Your task to perform on an android device: turn off data saver in the chrome app Image 0: 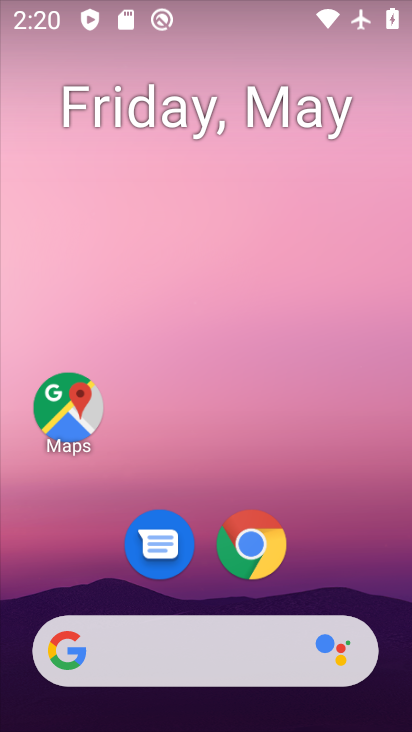
Step 0: click (266, 544)
Your task to perform on an android device: turn off data saver in the chrome app Image 1: 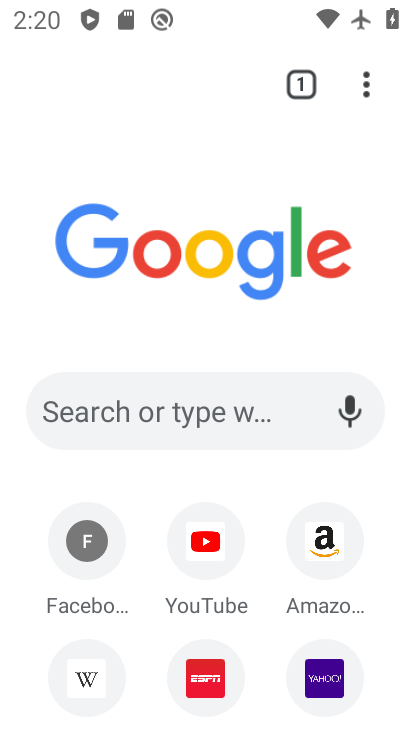
Step 1: drag from (363, 86) to (117, 594)
Your task to perform on an android device: turn off data saver in the chrome app Image 2: 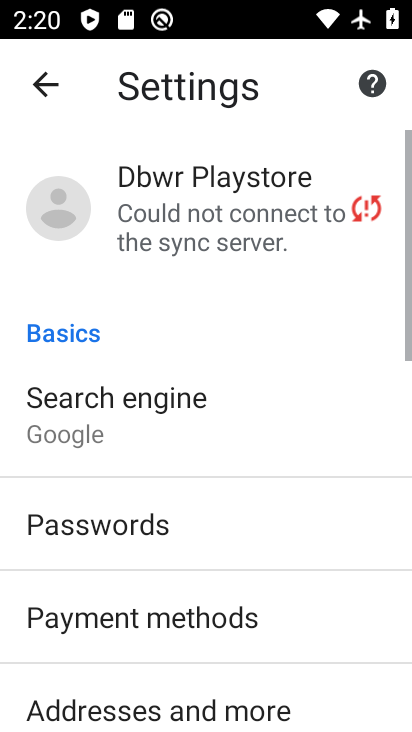
Step 2: drag from (193, 424) to (223, 220)
Your task to perform on an android device: turn off data saver in the chrome app Image 3: 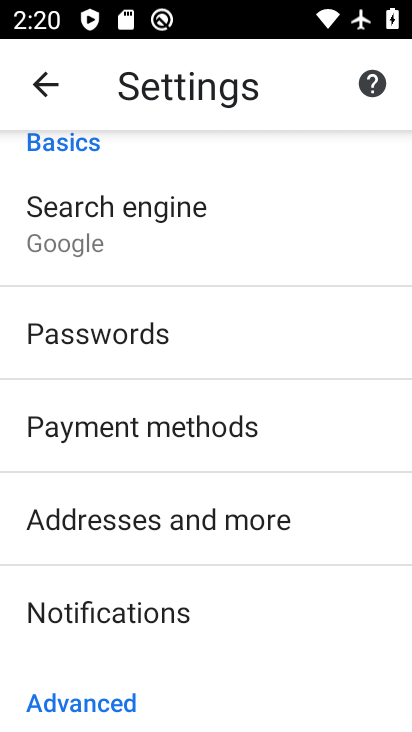
Step 3: drag from (150, 628) to (257, 125)
Your task to perform on an android device: turn off data saver in the chrome app Image 4: 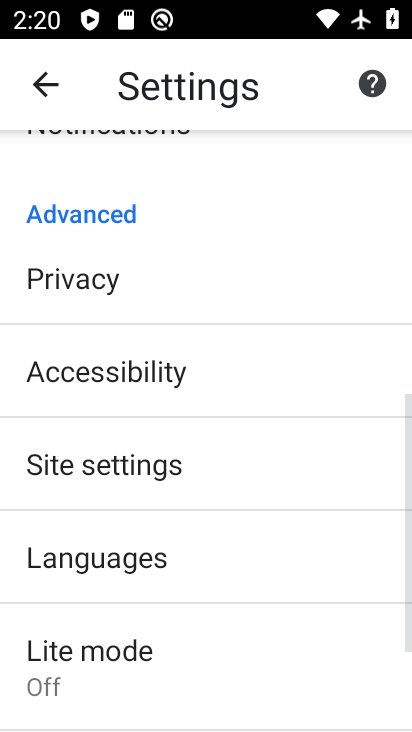
Step 4: drag from (132, 612) to (243, 81)
Your task to perform on an android device: turn off data saver in the chrome app Image 5: 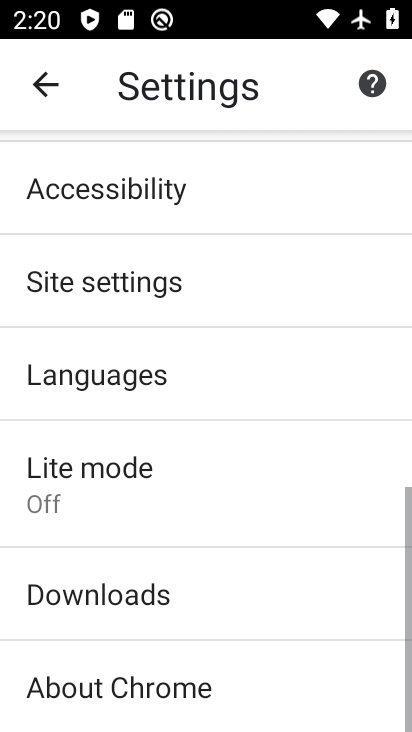
Step 5: click (46, 475)
Your task to perform on an android device: turn off data saver in the chrome app Image 6: 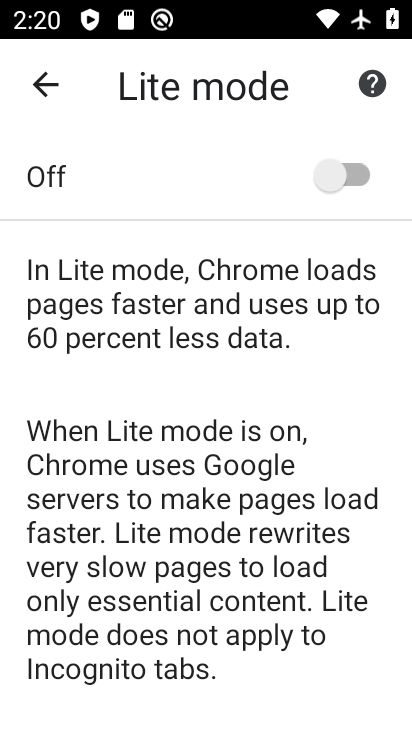
Step 6: task complete